Your task to perform on an android device: change the clock display to show seconds Image 0: 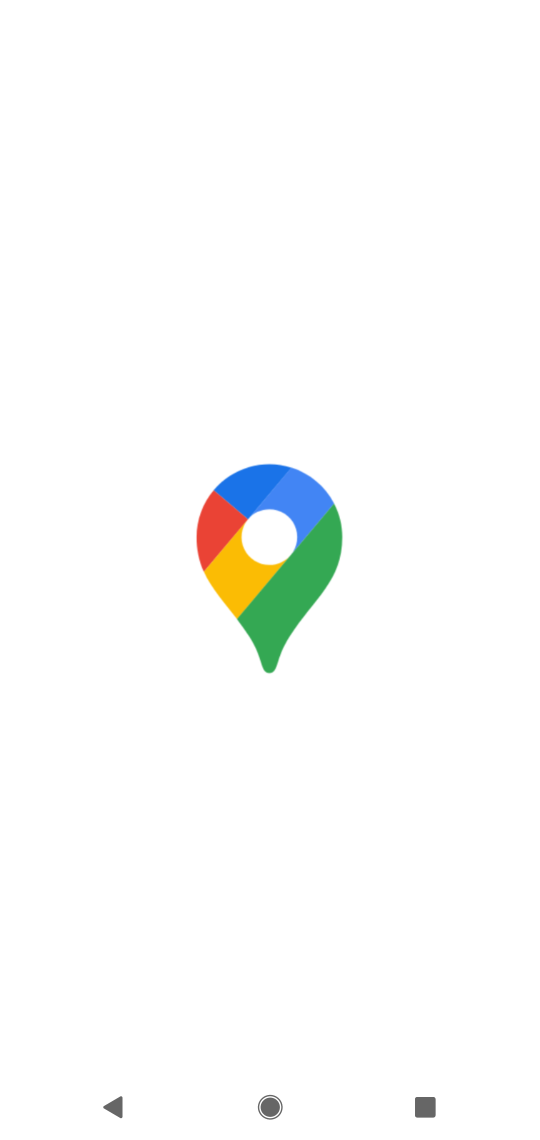
Step 0: press home button
Your task to perform on an android device: change the clock display to show seconds Image 1: 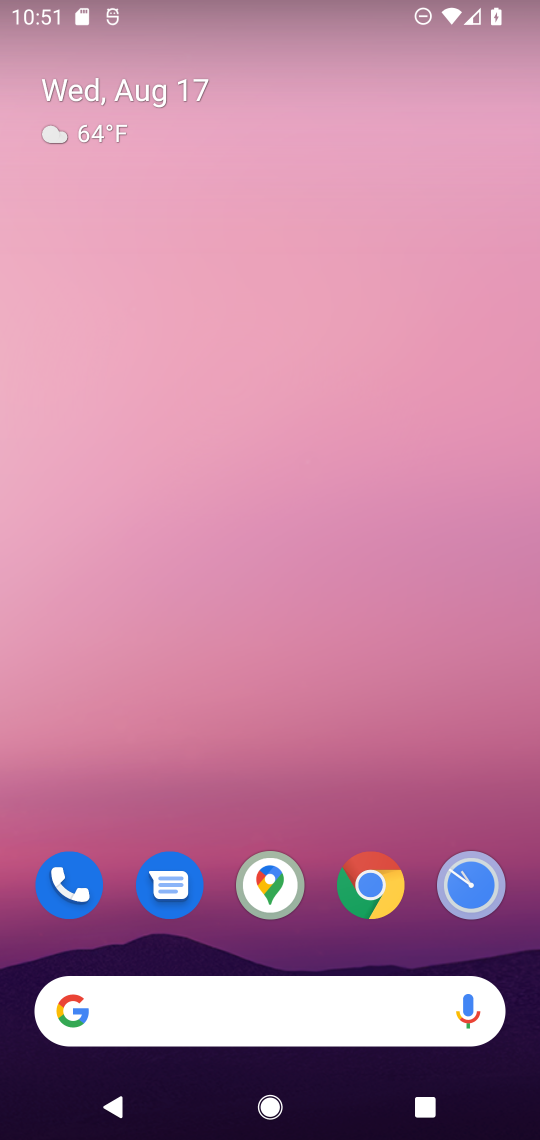
Step 1: click (467, 883)
Your task to perform on an android device: change the clock display to show seconds Image 2: 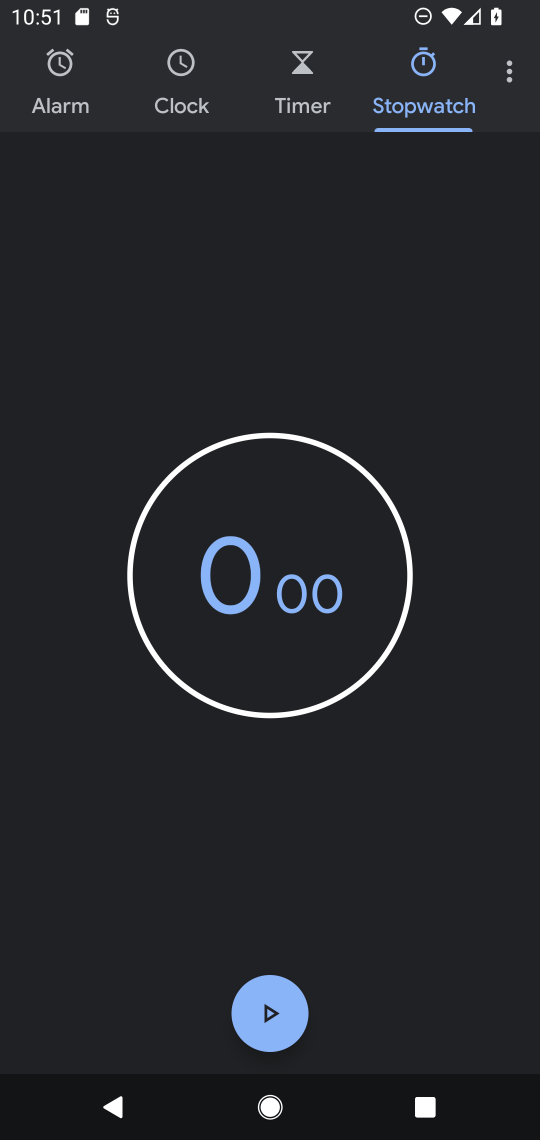
Step 2: click (502, 82)
Your task to perform on an android device: change the clock display to show seconds Image 3: 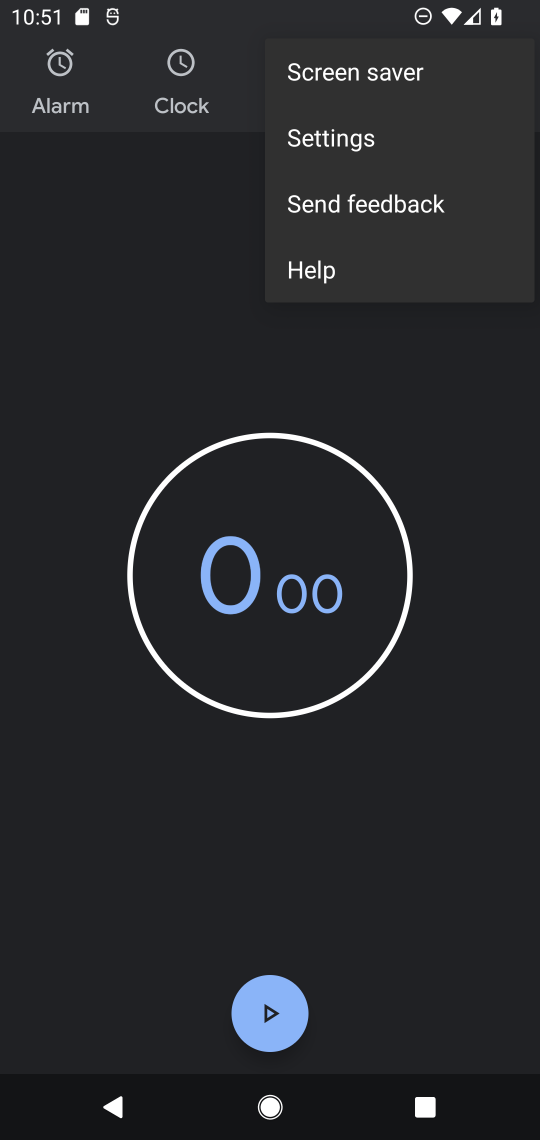
Step 3: click (322, 135)
Your task to perform on an android device: change the clock display to show seconds Image 4: 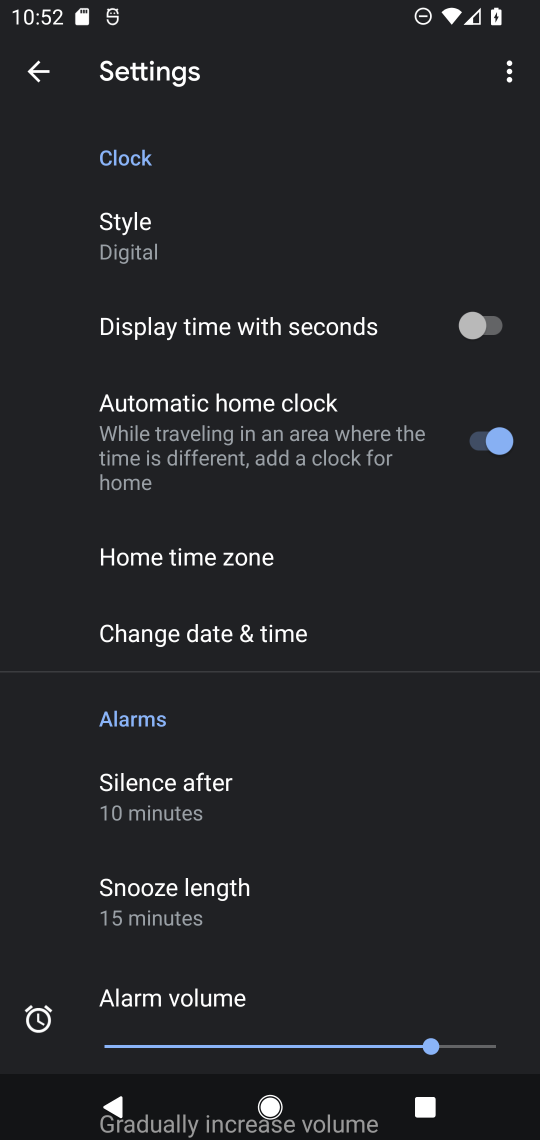
Step 4: click (497, 324)
Your task to perform on an android device: change the clock display to show seconds Image 5: 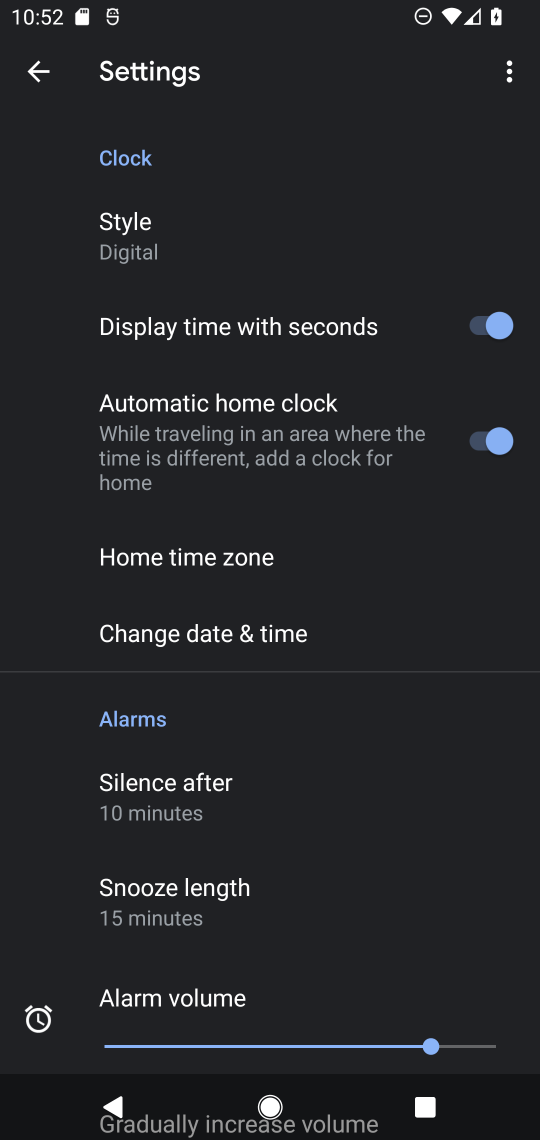
Step 5: task complete